Your task to perform on an android device: check storage Image 0: 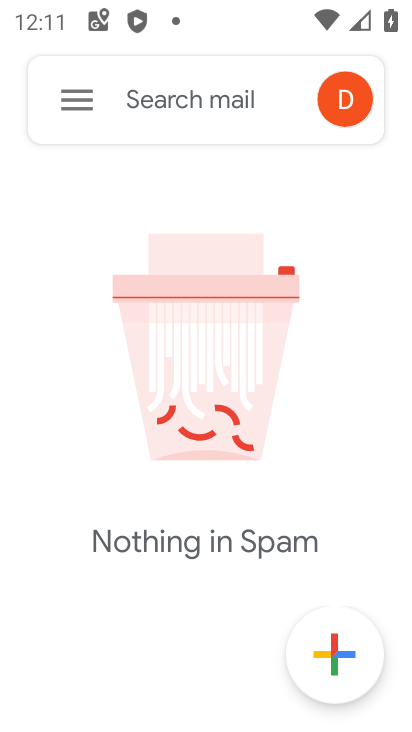
Step 0: press home button
Your task to perform on an android device: check storage Image 1: 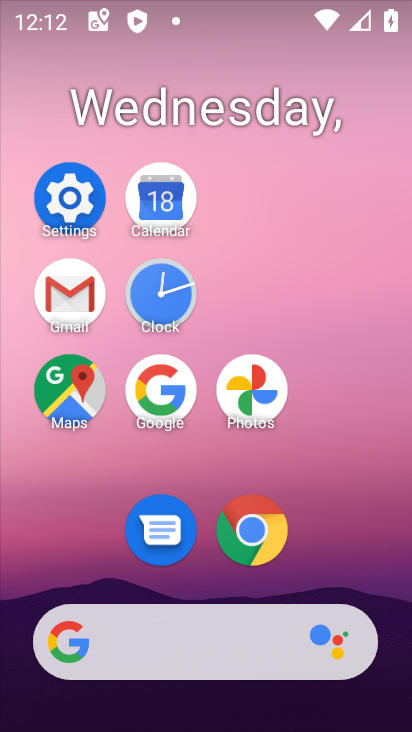
Step 1: click (54, 212)
Your task to perform on an android device: check storage Image 2: 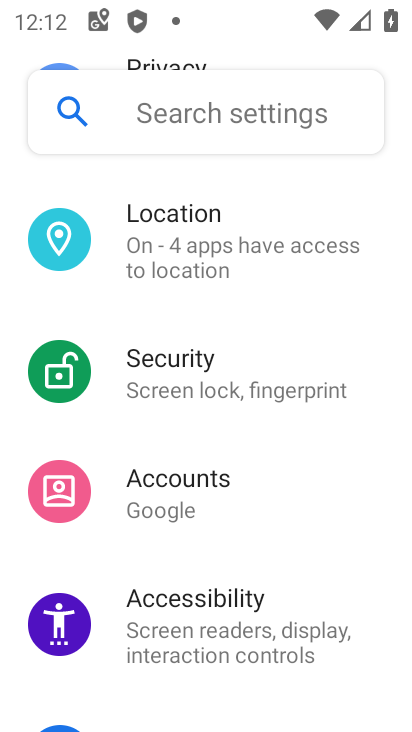
Step 2: drag from (251, 520) to (325, 627)
Your task to perform on an android device: check storage Image 3: 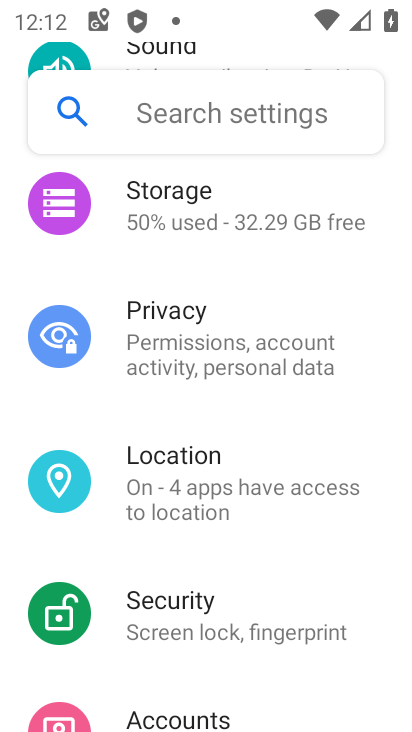
Step 3: click (175, 208)
Your task to perform on an android device: check storage Image 4: 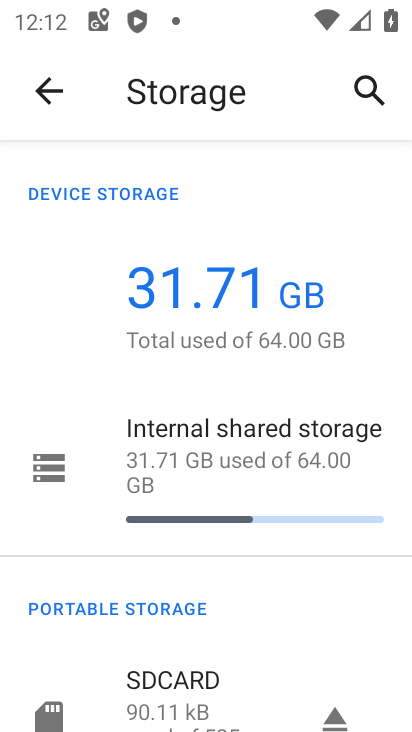
Step 4: task complete